Your task to perform on an android device: Search for sushi restaurants on Maps Image 0: 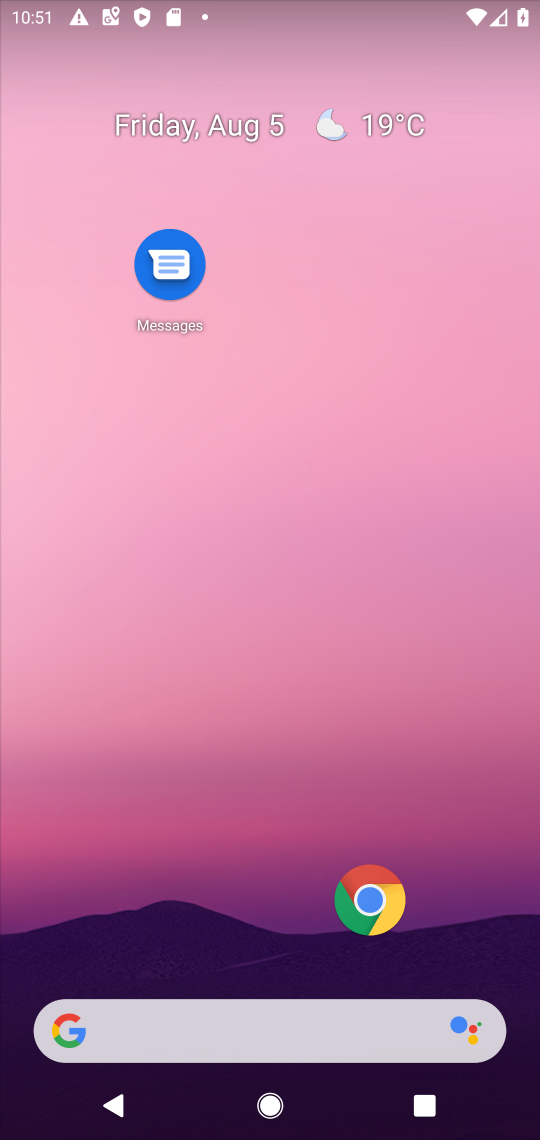
Step 0: press home button
Your task to perform on an android device: Search for sushi restaurants on Maps Image 1: 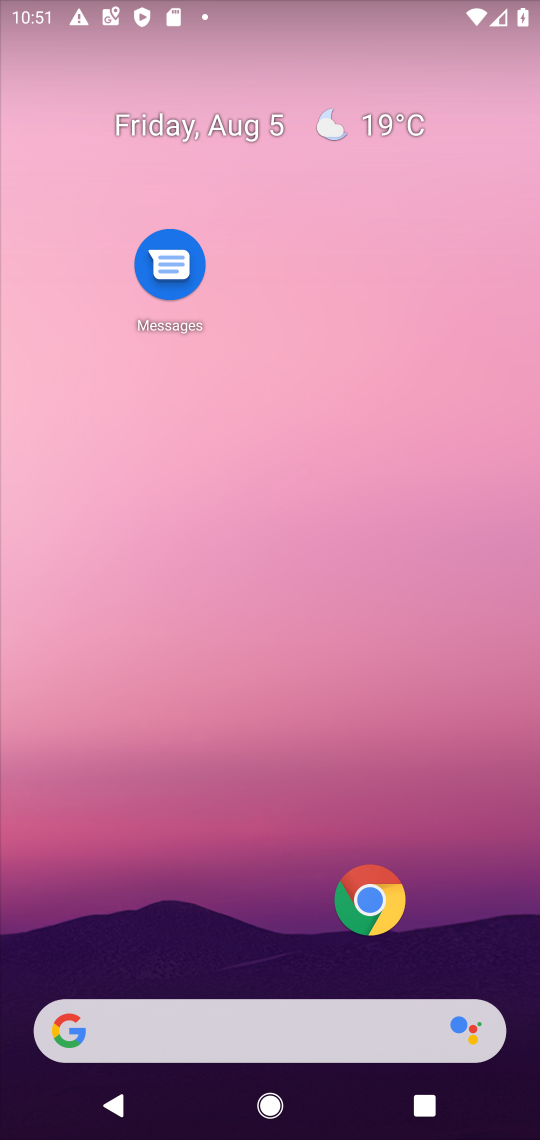
Step 1: drag from (202, 885) to (232, 210)
Your task to perform on an android device: Search for sushi restaurants on Maps Image 2: 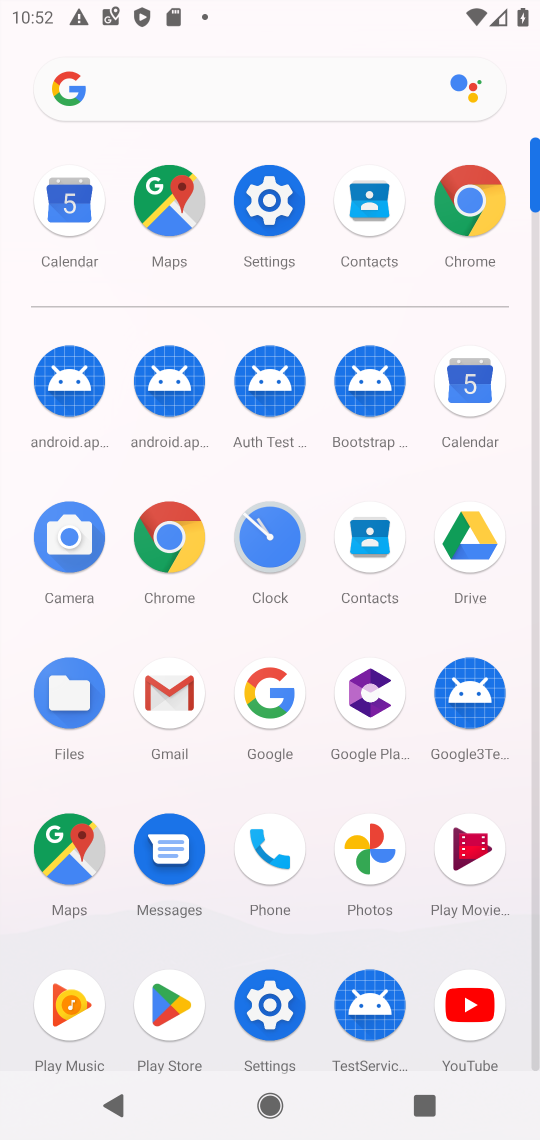
Step 2: click (165, 214)
Your task to perform on an android device: Search for sushi restaurants on Maps Image 3: 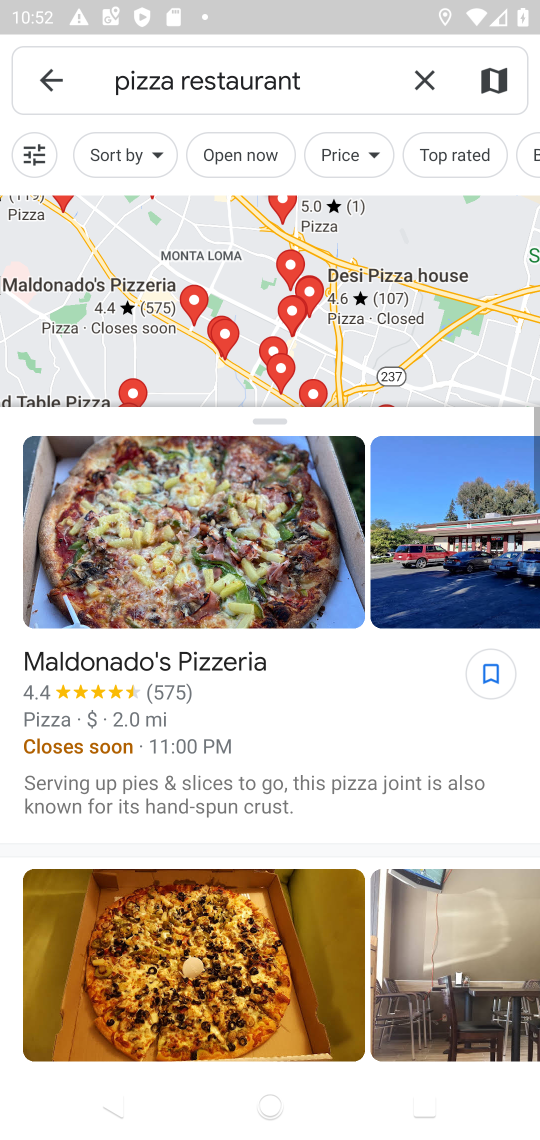
Step 3: click (427, 64)
Your task to perform on an android device: Search for sushi restaurants on Maps Image 4: 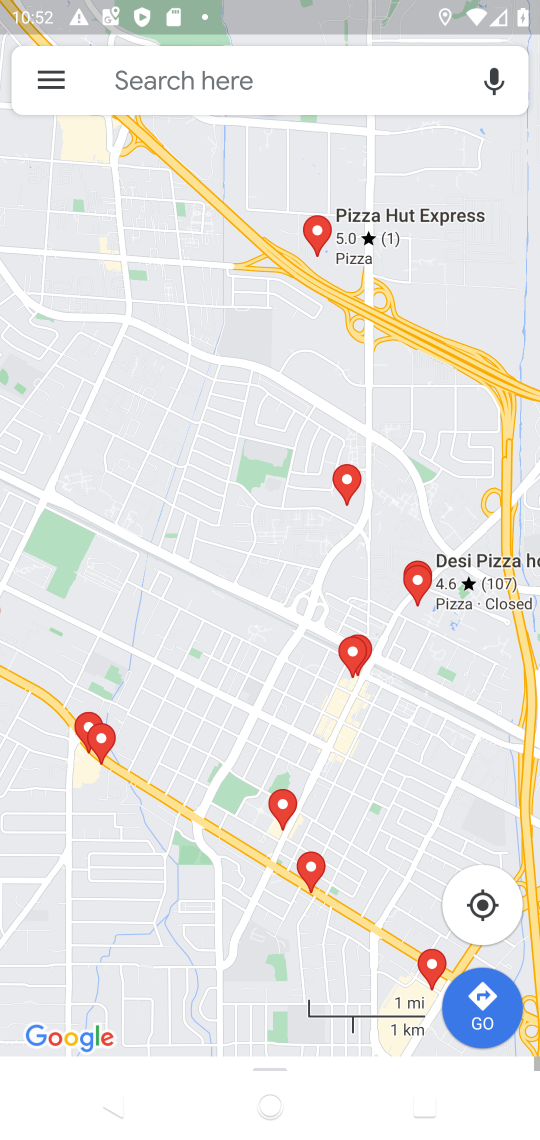
Step 4: click (346, 67)
Your task to perform on an android device: Search for sushi restaurants on Maps Image 5: 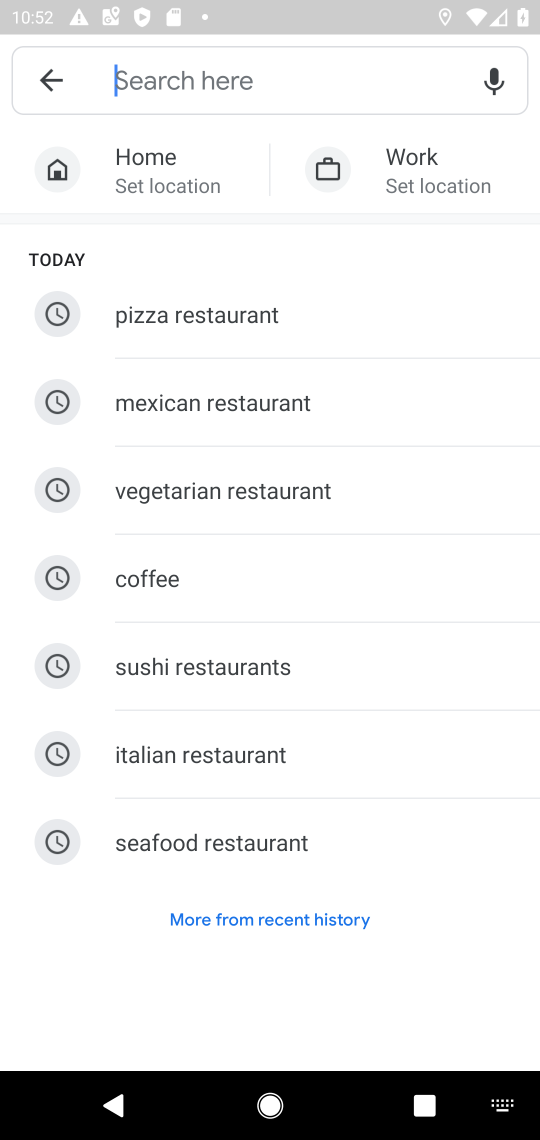
Step 5: type "sushi restaurants"
Your task to perform on an android device: Search for sushi restaurants on Maps Image 6: 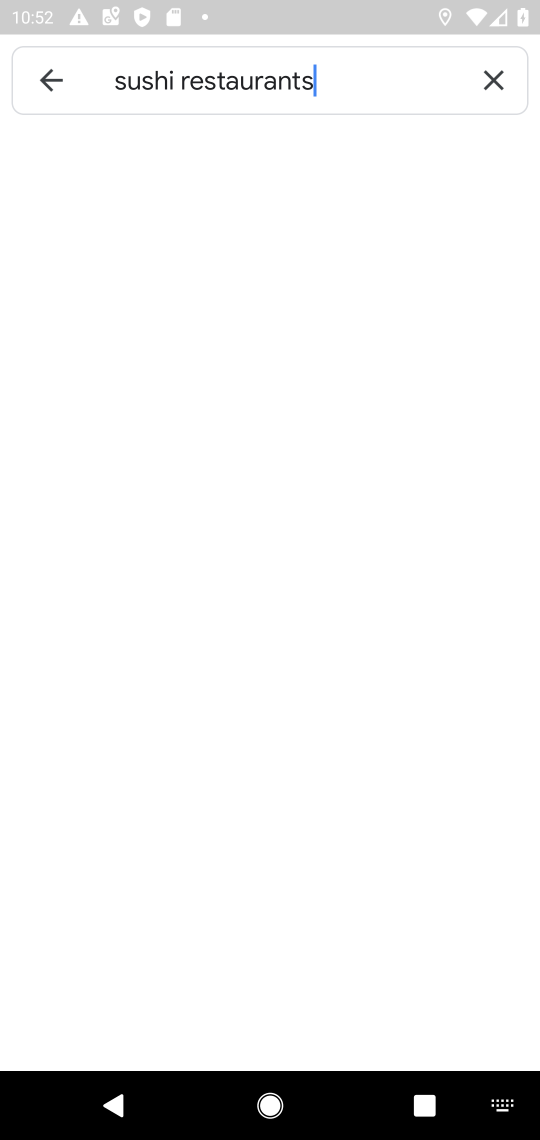
Step 6: type ""
Your task to perform on an android device: Search for sushi restaurants on Maps Image 7: 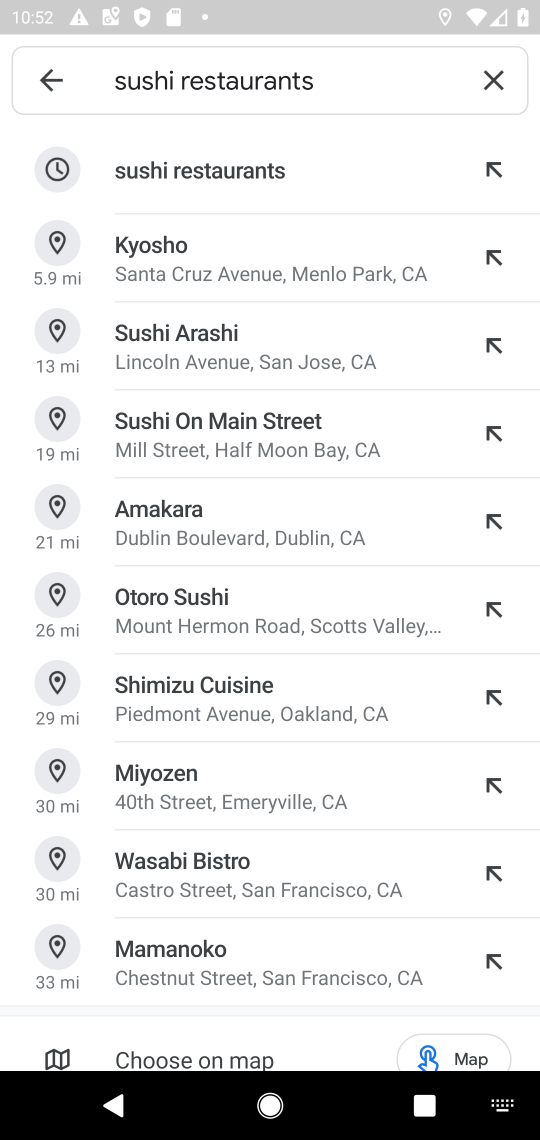
Step 7: click (214, 179)
Your task to perform on an android device: Search for sushi restaurants on Maps Image 8: 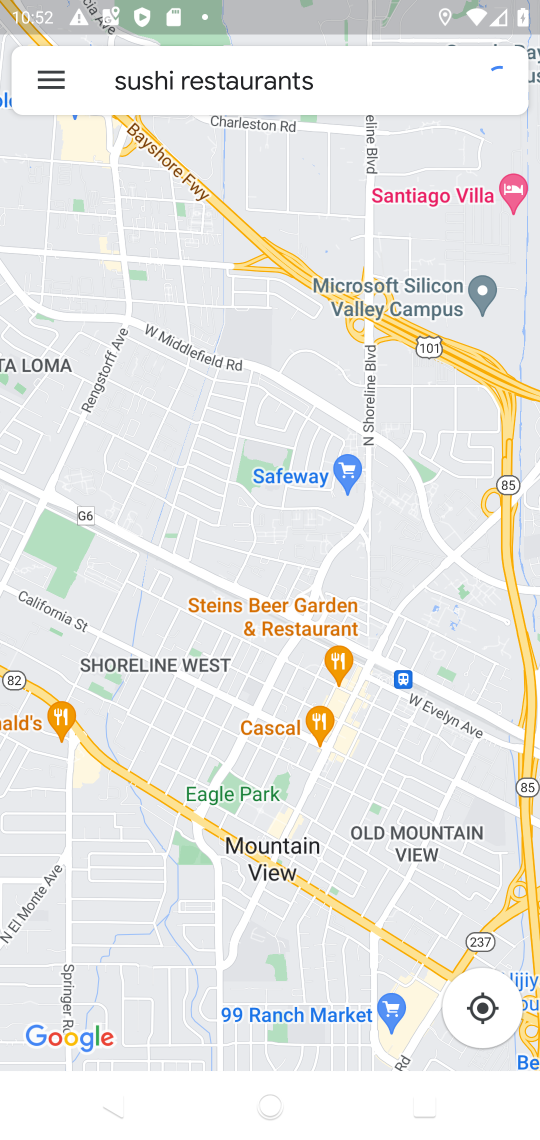
Step 8: task complete